Your task to perform on an android device: turn off airplane mode Image 0: 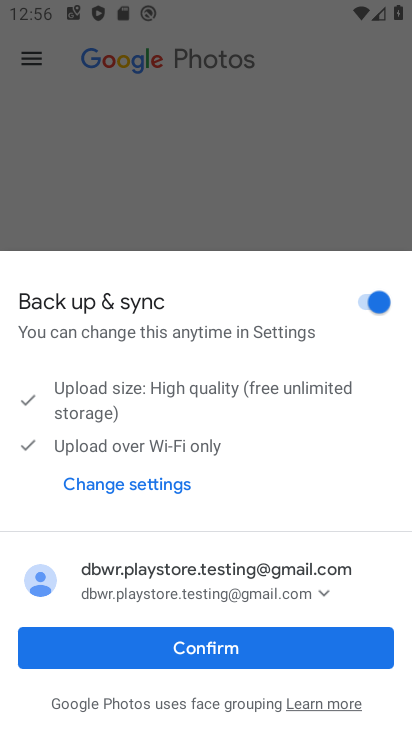
Step 0: press home button
Your task to perform on an android device: turn off airplane mode Image 1: 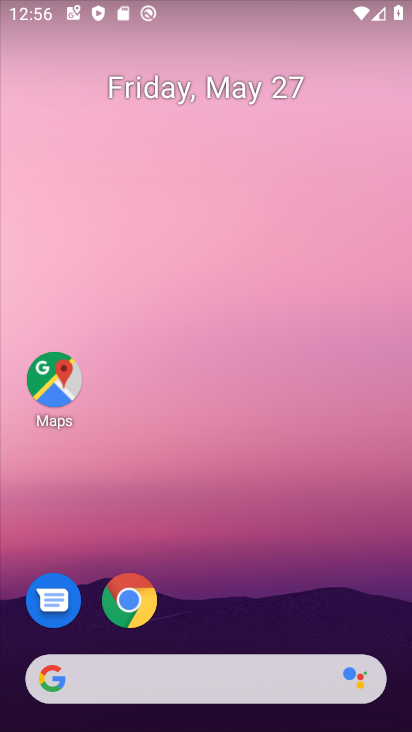
Step 1: drag from (221, 630) to (157, 183)
Your task to perform on an android device: turn off airplane mode Image 2: 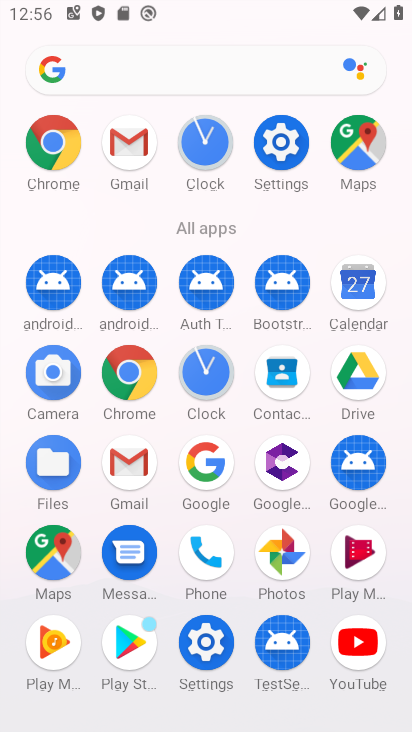
Step 2: click (278, 158)
Your task to perform on an android device: turn off airplane mode Image 3: 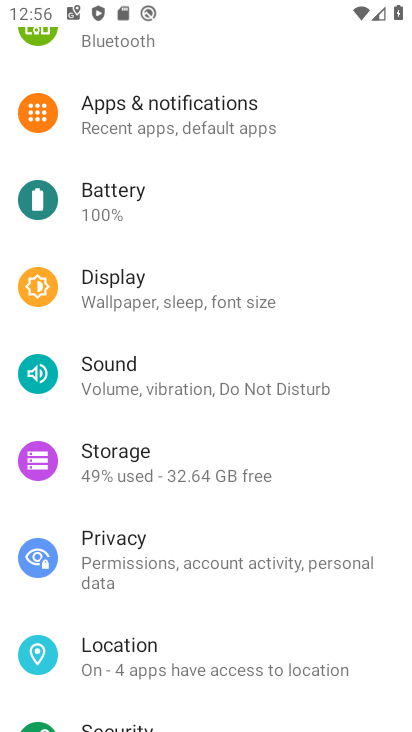
Step 3: drag from (215, 180) to (189, 712)
Your task to perform on an android device: turn off airplane mode Image 4: 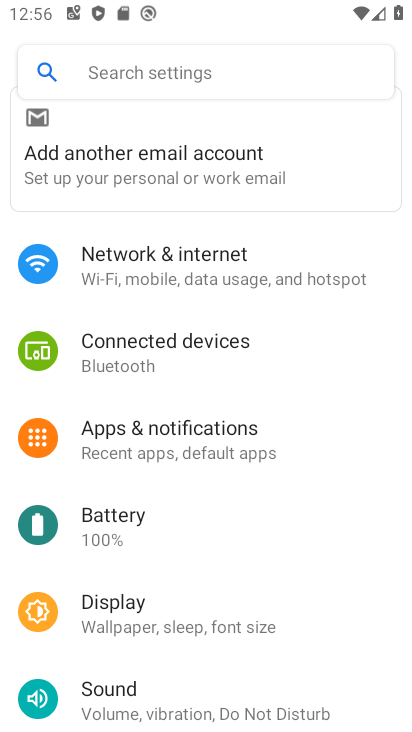
Step 4: click (197, 287)
Your task to perform on an android device: turn off airplane mode Image 5: 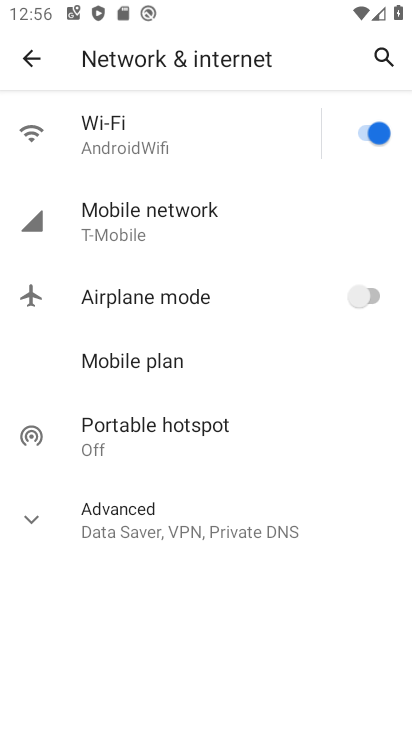
Step 5: click (344, 293)
Your task to perform on an android device: turn off airplane mode Image 6: 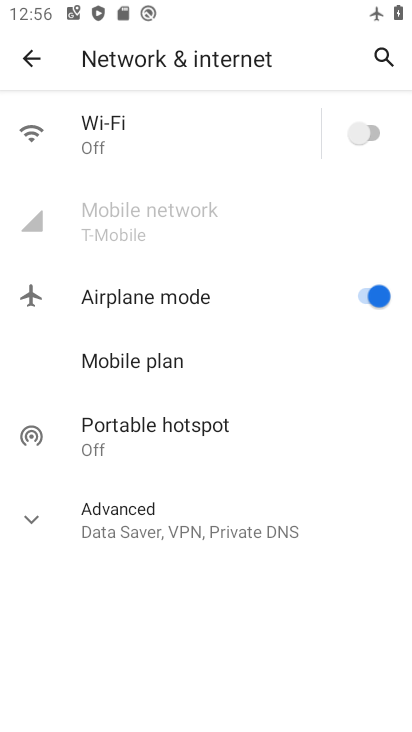
Step 6: task complete